Your task to perform on an android device: toggle notifications settings in the gmail app Image 0: 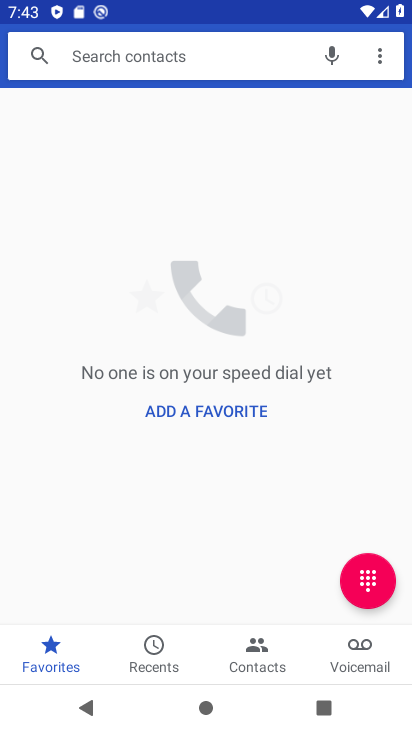
Step 0: press home button
Your task to perform on an android device: toggle notifications settings in the gmail app Image 1: 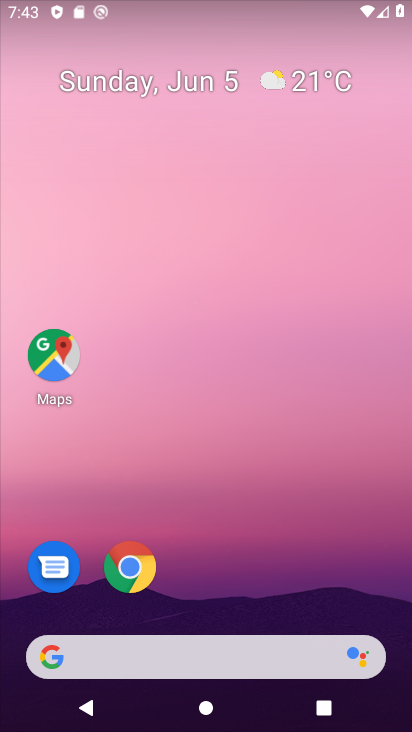
Step 1: drag from (229, 645) to (290, 283)
Your task to perform on an android device: toggle notifications settings in the gmail app Image 2: 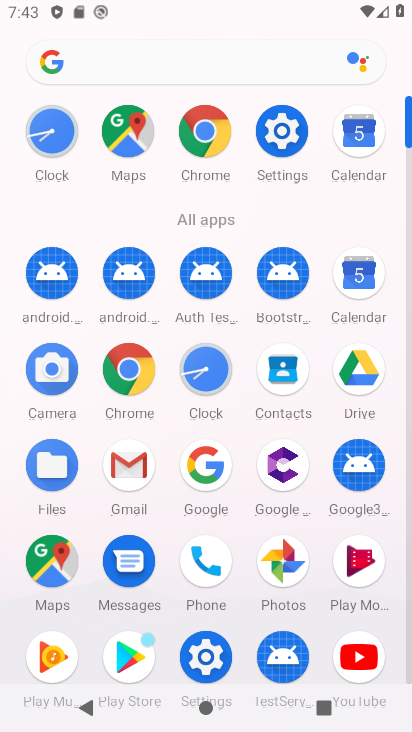
Step 2: click (135, 470)
Your task to perform on an android device: toggle notifications settings in the gmail app Image 3: 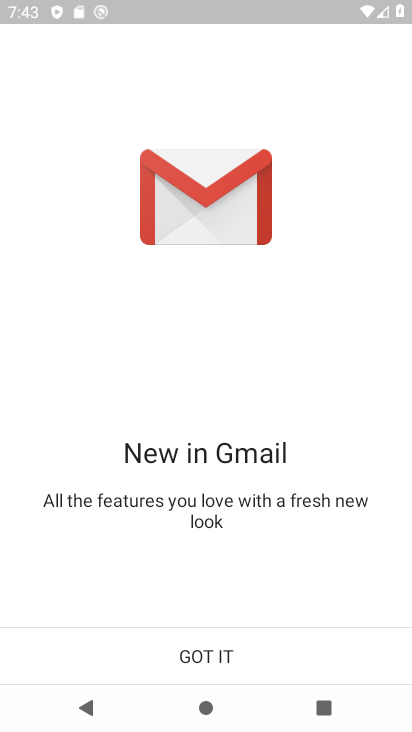
Step 3: click (185, 668)
Your task to perform on an android device: toggle notifications settings in the gmail app Image 4: 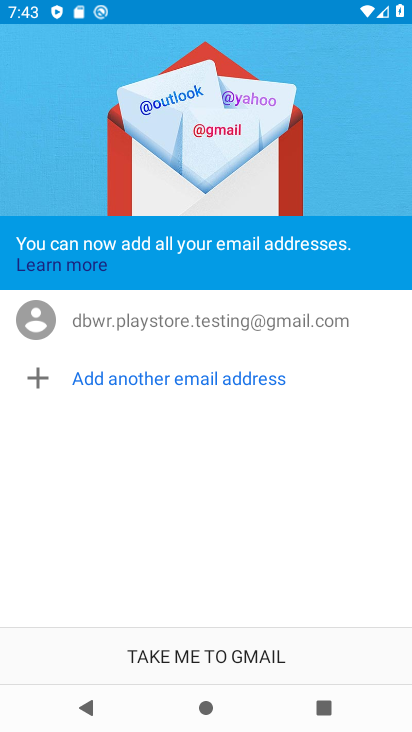
Step 4: click (185, 668)
Your task to perform on an android device: toggle notifications settings in the gmail app Image 5: 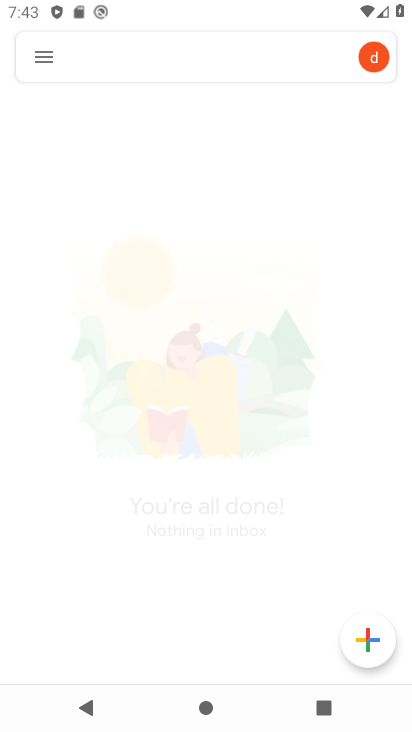
Step 5: click (41, 58)
Your task to perform on an android device: toggle notifications settings in the gmail app Image 6: 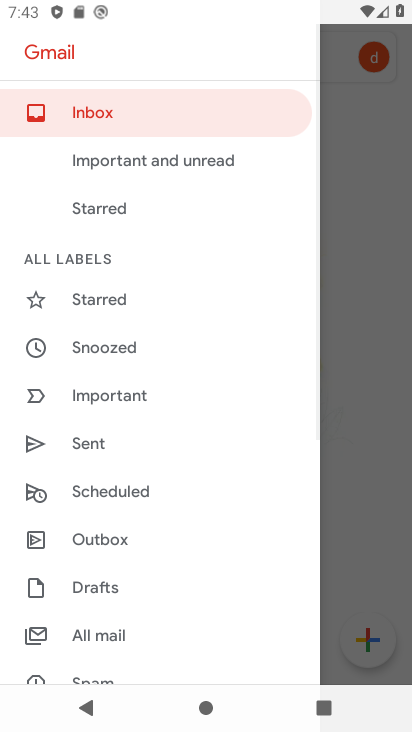
Step 6: drag from (121, 666) to (194, 143)
Your task to perform on an android device: toggle notifications settings in the gmail app Image 7: 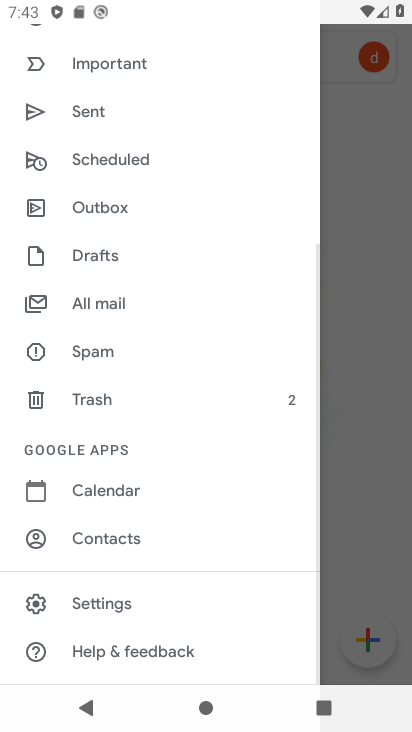
Step 7: click (119, 608)
Your task to perform on an android device: toggle notifications settings in the gmail app Image 8: 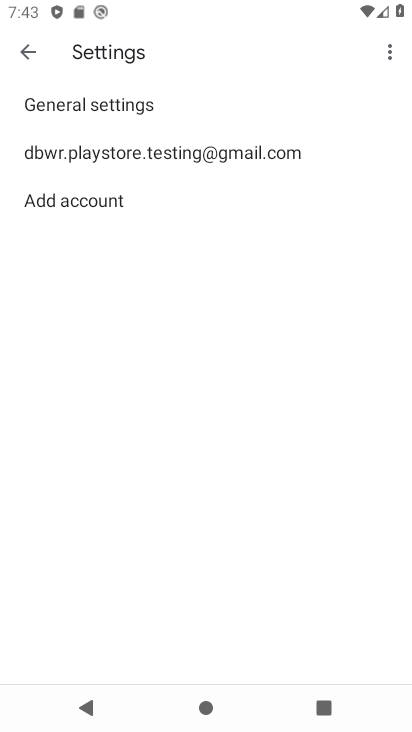
Step 8: click (126, 105)
Your task to perform on an android device: toggle notifications settings in the gmail app Image 9: 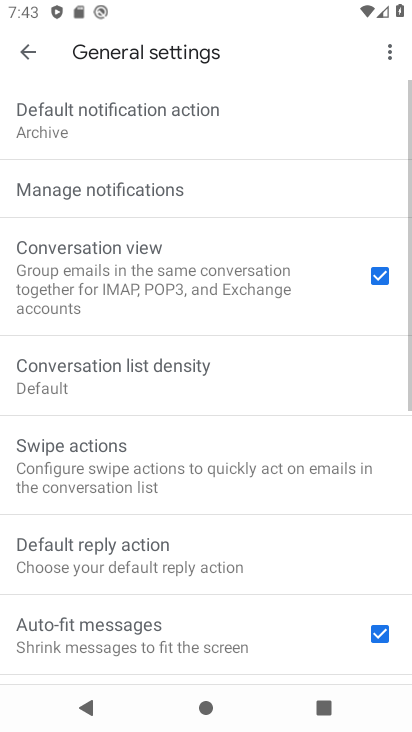
Step 9: click (121, 203)
Your task to perform on an android device: toggle notifications settings in the gmail app Image 10: 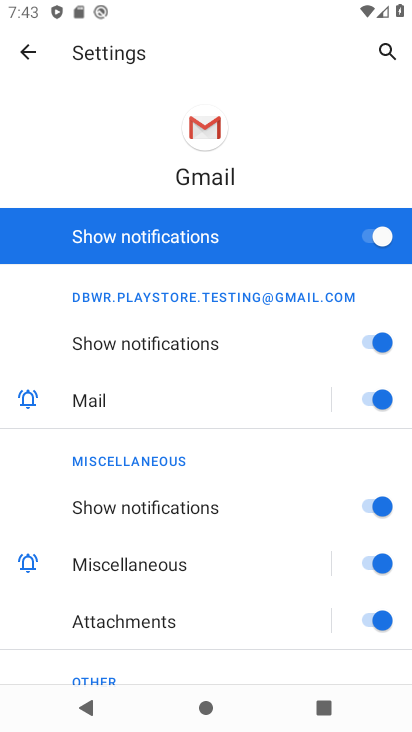
Step 10: click (374, 237)
Your task to perform on an android device: toggle notifications settings in the gmail app Image 11: 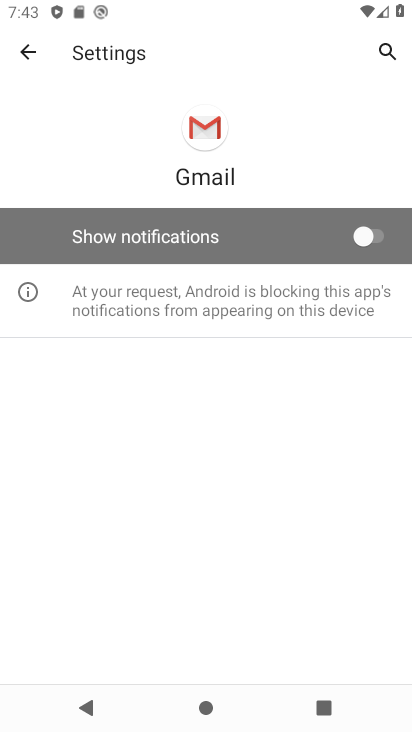
Step 11: task complete